Your task to perform on an android device: see creations saved in the google photos Image 0: 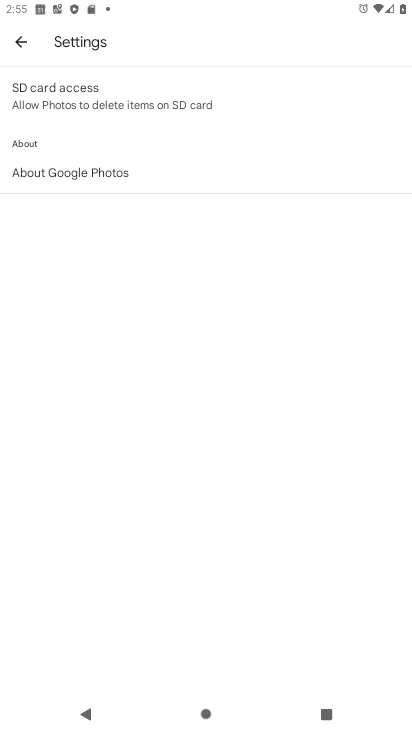
Step 0: press home button
Your task to perform on an android device: see creations saved in the google photos Image 1: 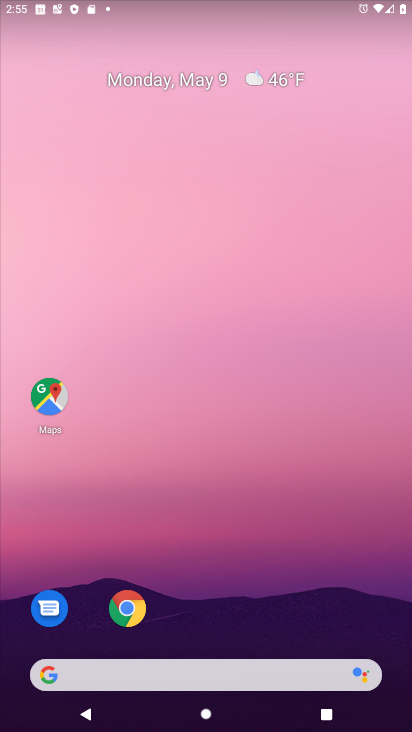
Step 1: drag from (169, 625) to (207, 235)
Your task to perform on an android device: see creations saved in the google photos Image 2: 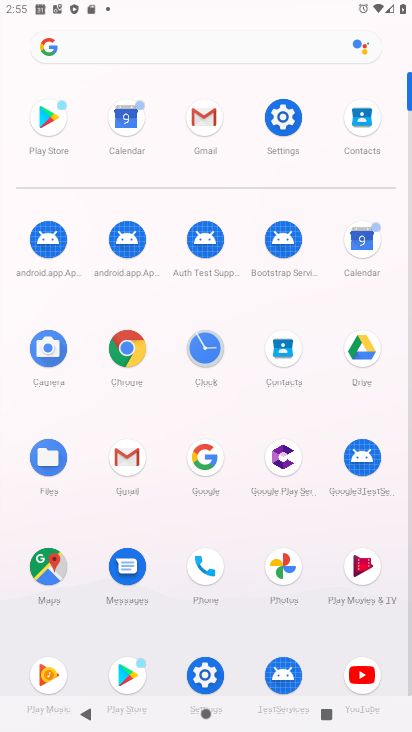
Step 2: click (279, 555)
Your task to perform on an android device: see creations saved in the google photos Image 3: 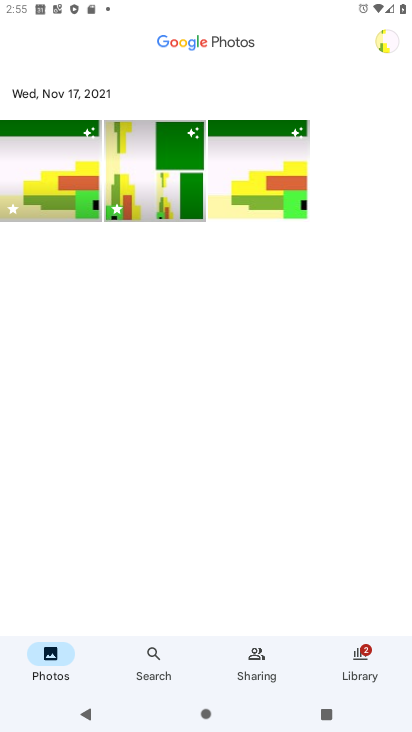
Step 3: click (153, 669)
Your task to perform on an android device: see creations saved in the google photos Image 4: 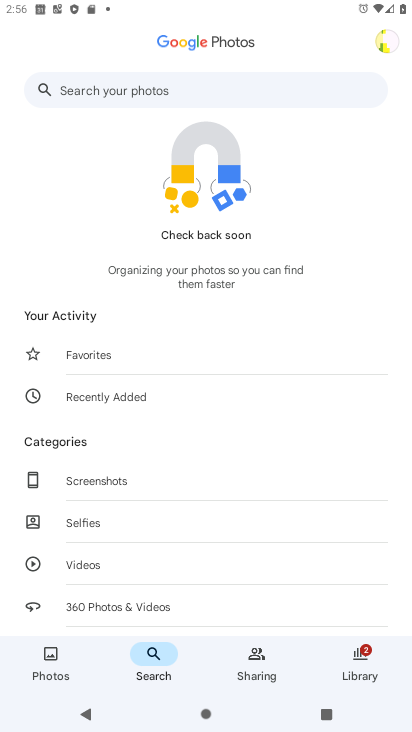
Step 4: click (107, 80)
Your task to perform on an android device: see creations saved in the google photos Image 5: 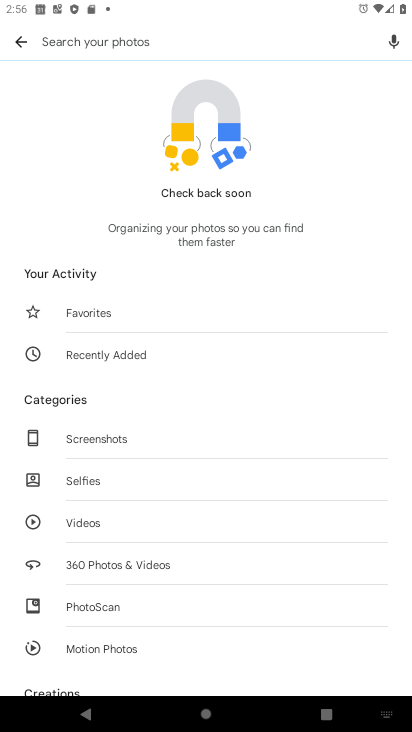
Step 5: type "creations"
Your task to perform on an android device: see creations saved in the google photos Image 6: 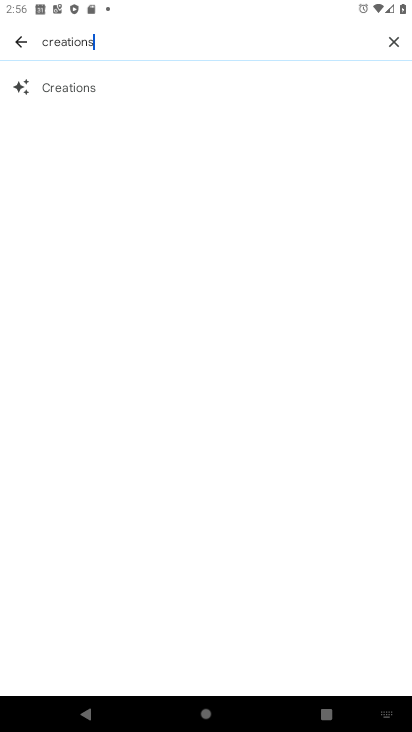
Step 6: click (106, 92)
Your task to perform on an android device: see creations saved in the google photos Image 7: 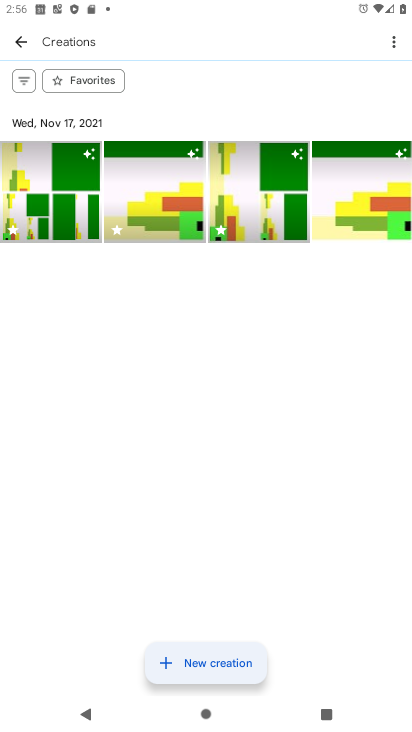
Step 7: task complete